Your task to perform on an android device: Add corsair k70 to the cart on ebay, then select checkout. Image 0: 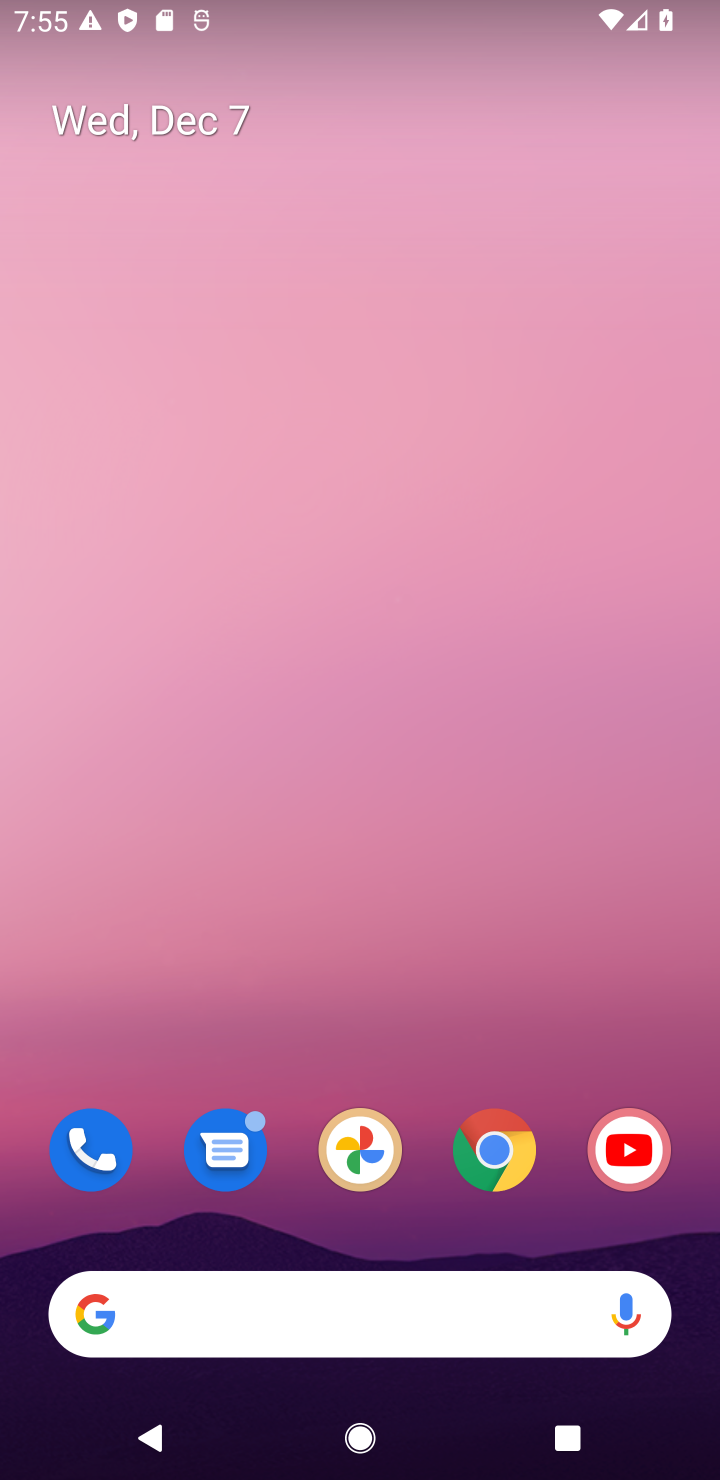
Step 0: task complete